Your task to perform on an android device: Check the weather Image 0: 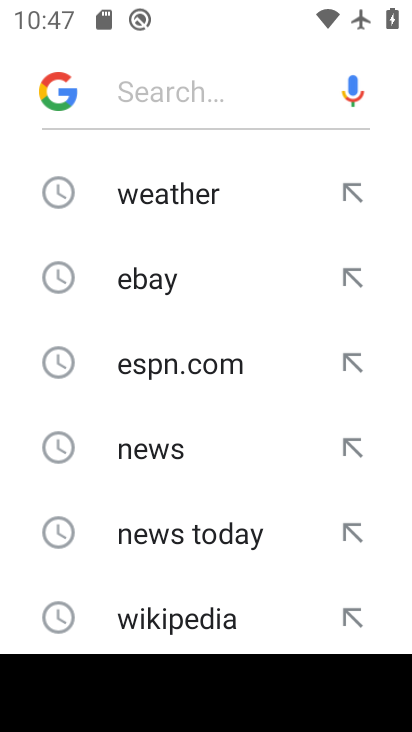
Step 0: press home button
Your task to perform on an android device: Check the weather Image 1: 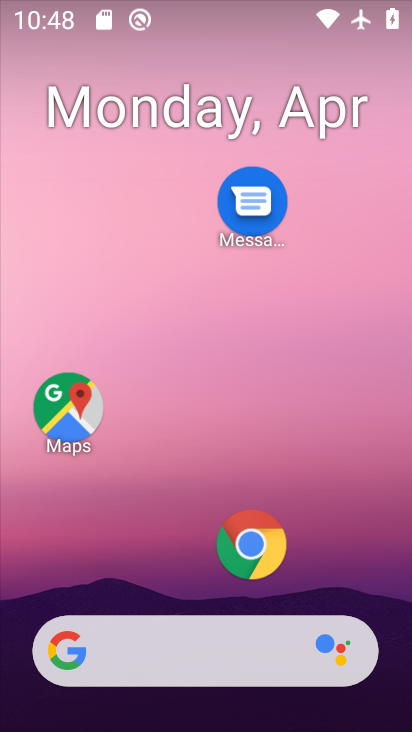
Step 1: task complete